Your task to perform on an android device: move a message to another label in the gmail app Image 0: 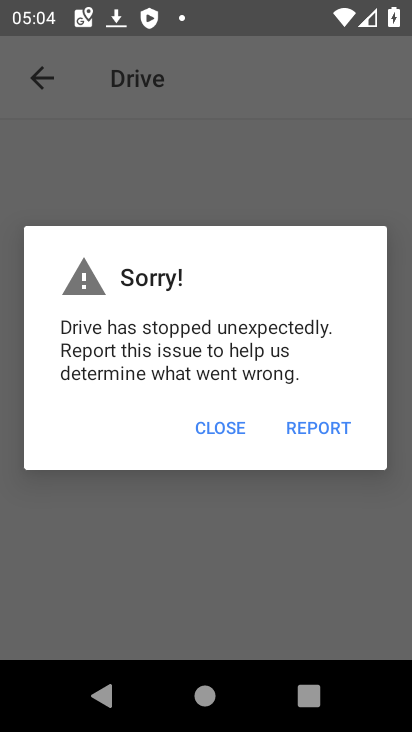
Step 0: press home button
Your task to perform on an android device: move a message to another label in the gmail app Image 1: 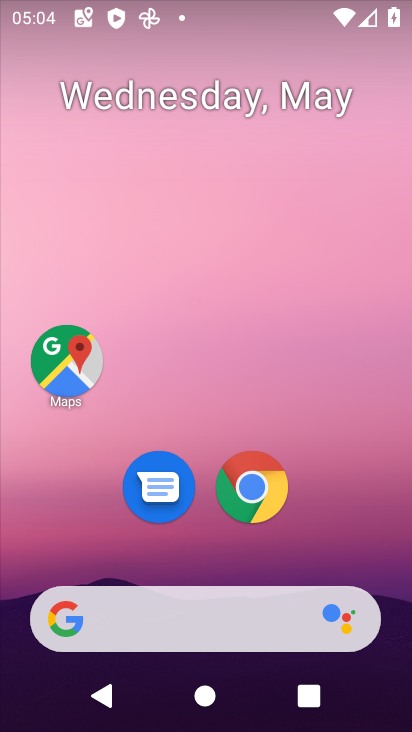
Step 1: drag from (350, 526) to (240, 74)
Your task to perform on an android device: move a message to another label in the gmail app Image 2: 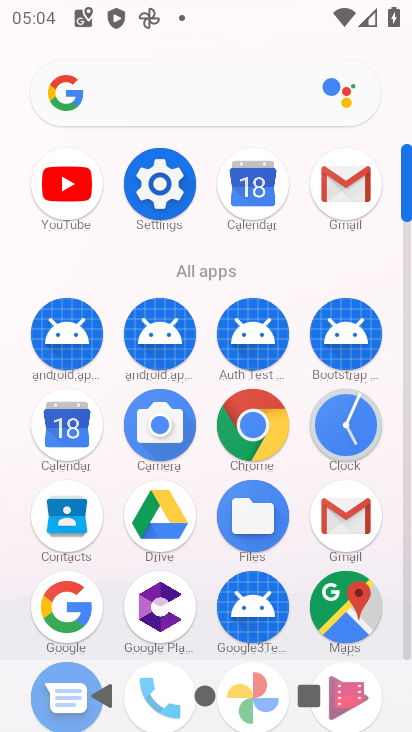
Step 2: click (323, 222)
Your task to perform on an android device: move a message to another label in the gmail app Image 3: 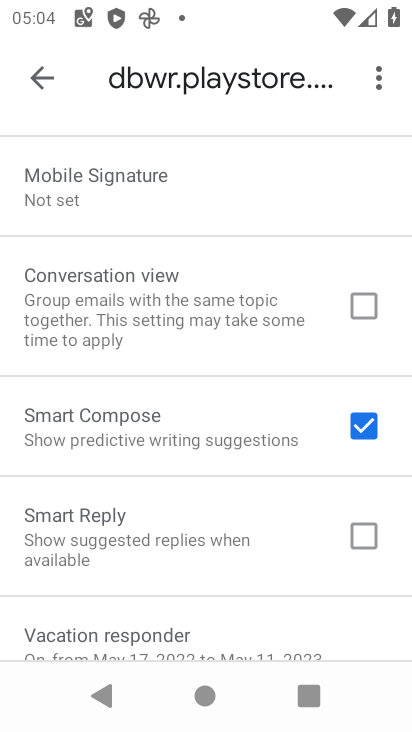
Step 3: click (20, 68)
Your task to perform on an android device: move a message to another label in the gmail app Image 4: 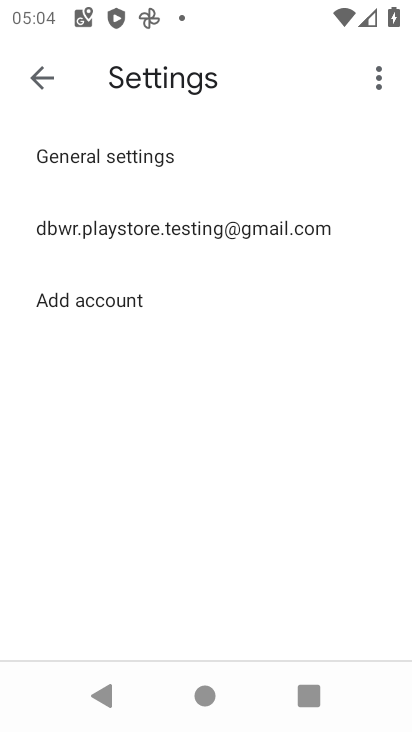
Step 4: click (42, 86)
Your task to perform on an android device: move a message to another label in the gmail app Image 5: 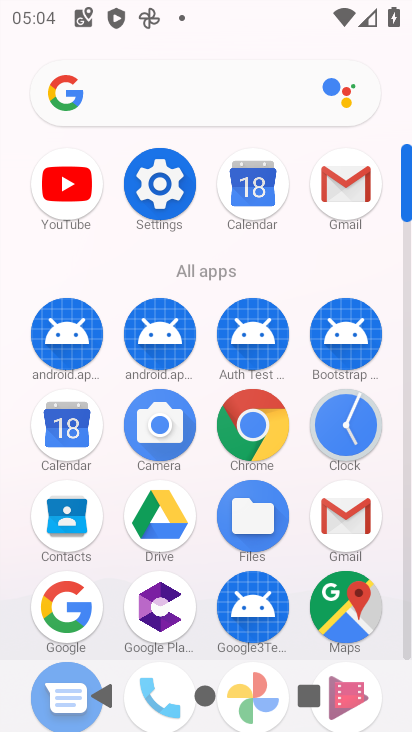
Step 5: click (327, 505)
Your task to perform on an android device: move a message to another label in the gmail app Image 6: 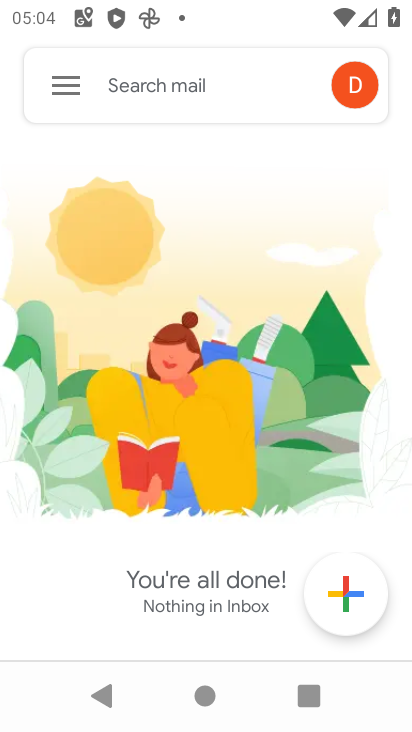
Step 6: click (65, 105)
Your task to perform on an android device: move a message to another label in the gmail app Image 7: 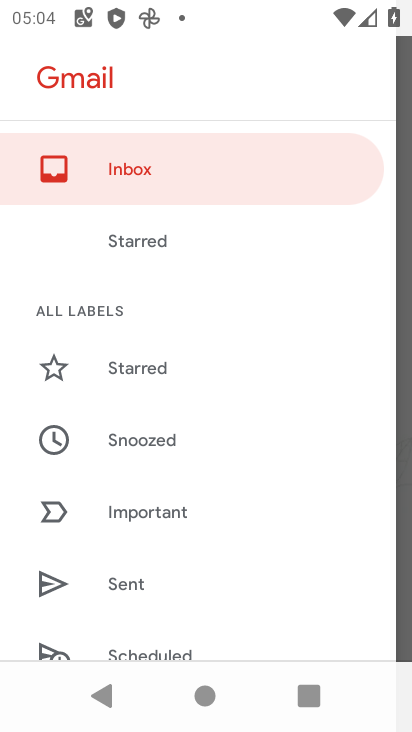
Step 7: drag from (161, 619) to (165, 316)
Your task to perform on an android device: move a message to another label in the gmail app Image 8: 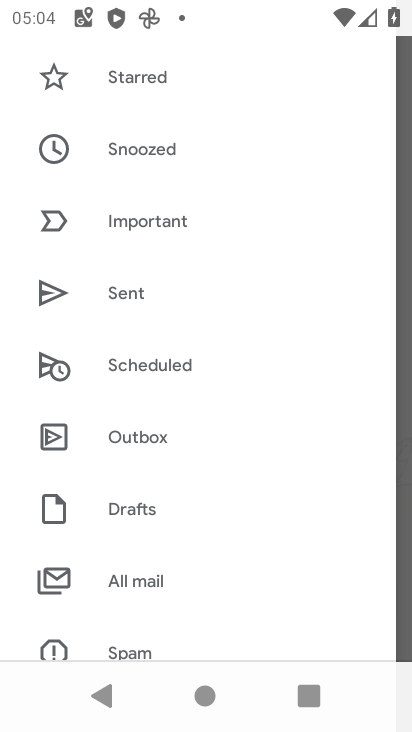
Step 8: click (151, 583)
Your task to perform on an android device: move a message to another label in the gmail app Image 9: 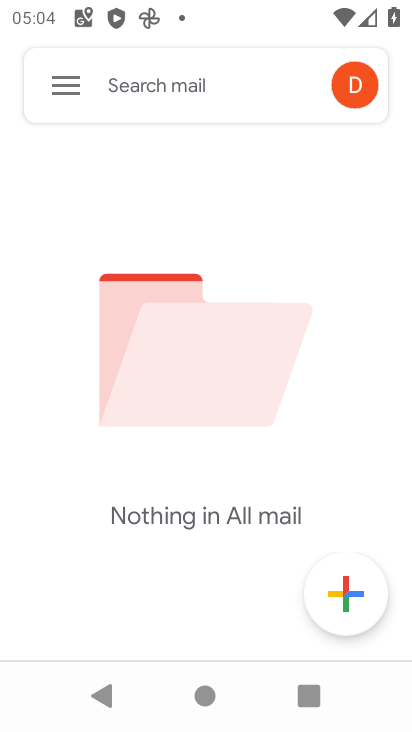
Step 9: task complete